Your task to perform on an android device: Open calendar and show me the fourth week of next month Image 0: 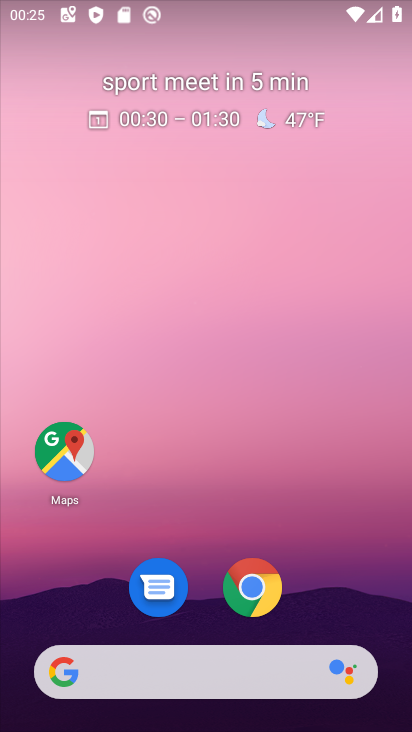
Step 0: drag from (393, 672) to (370, 217)
Your task to perform on an android device: Open calendar and show me the fourth week of next month Image 1: 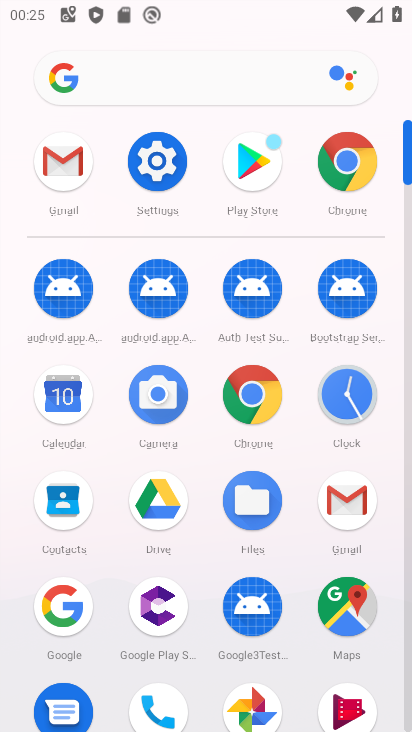
Step 1: click (56, 404)
Your task to perform on an android device: Open calendar and show me the fourth week of next month Image 2: 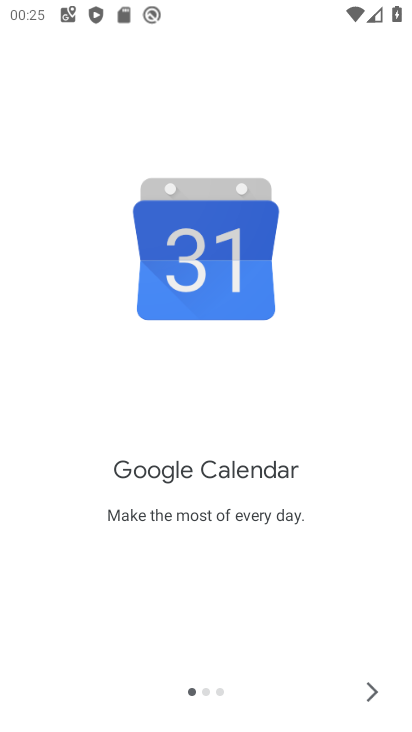
Step 2: click (368, 687)
Your task to perform on an android device: Open calendar and show me the fourth week of next month Image 3: 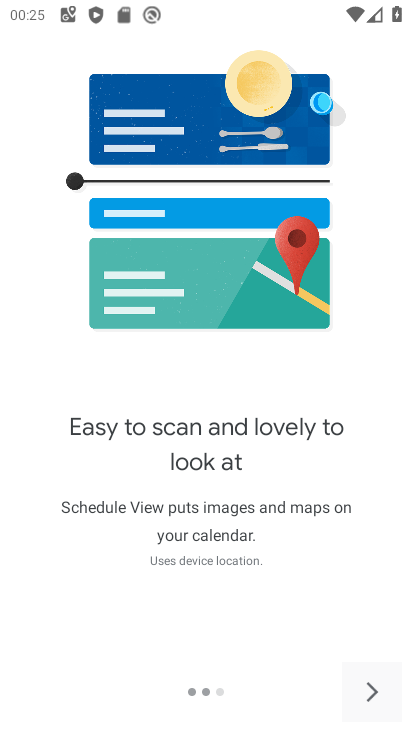
Step 3: click (368, 687)
Your task to perform on an android device: Open calendar and show me the fourth week of next month Image 4: 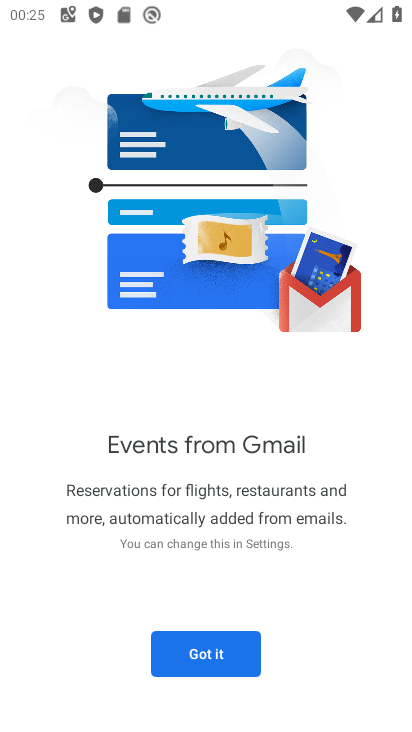
Step 4: click (368, 687)
Your task to perform on an android device: Open calendar and show me the fourth week of next month Image 5: 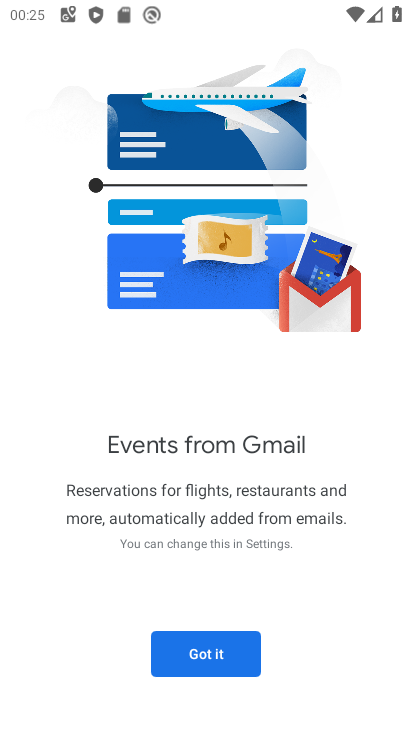
Step 5: click (194, 651)
Your task to perform on an android device: Open calendar and show me the fourth week of next month Image 6: 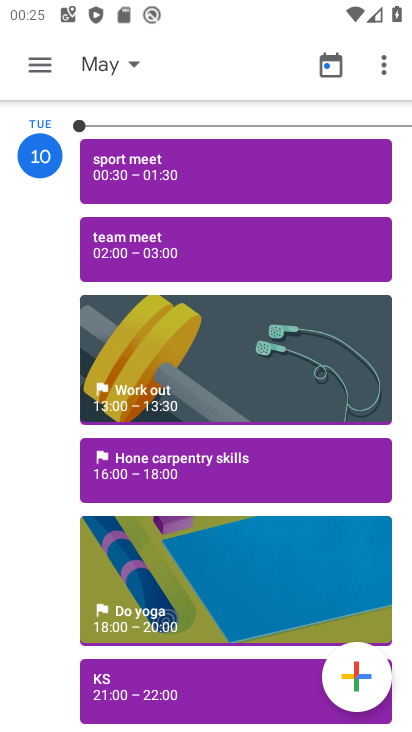
Step 6: click (130, 62)
Your task to perform on an android device: Open calendar and show me the fourth week of next month Image 7: 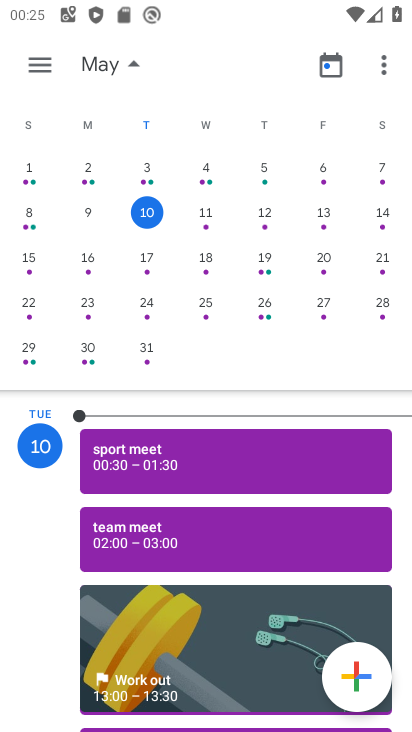
Step 7: drag from (162, 204) to (293, 201)
Your task to perform on an android device: Open calendar and show me the fourth week of next month Image 8: 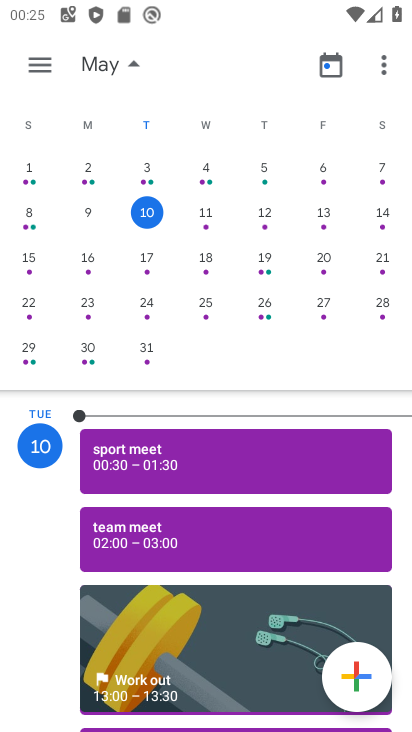
Step 8: drag from (395, 207) to (3, 223)
Your task to perform on an android device: Open calendar and show me the fourth week of next month Image 9: 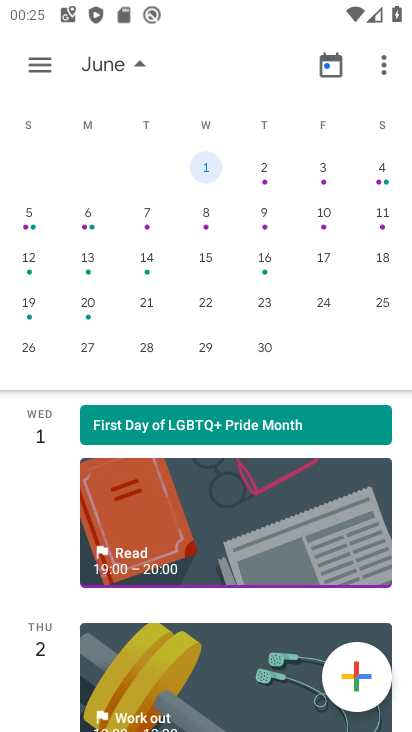
Step 9: click (264, 301)
Your task to perform on an android device: Open calendar and show me the fourth week of next month Image 10: 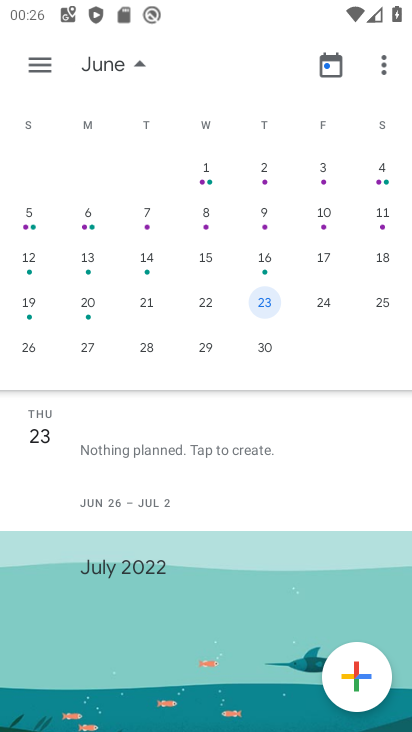
Step 10: task complete